Your task to perform on an android device: check the backup settings in the google photos Image 0: 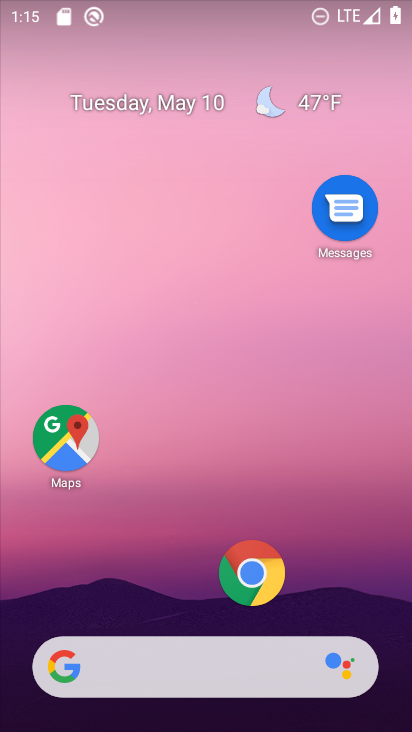
Step 0: drag from (207, 629) to (253, 148)
Your task to perform on an android device: check the backup settings in the google photos Image 1: 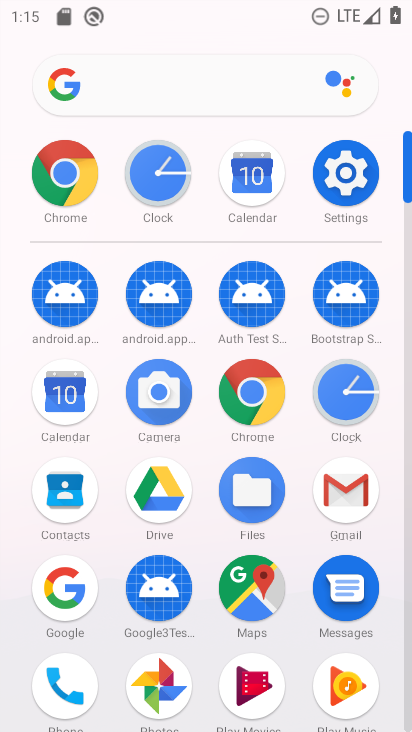
Step 1: click (153, 693)
Your task to perform on an android device: check the backup settings in the google photos Image 2: 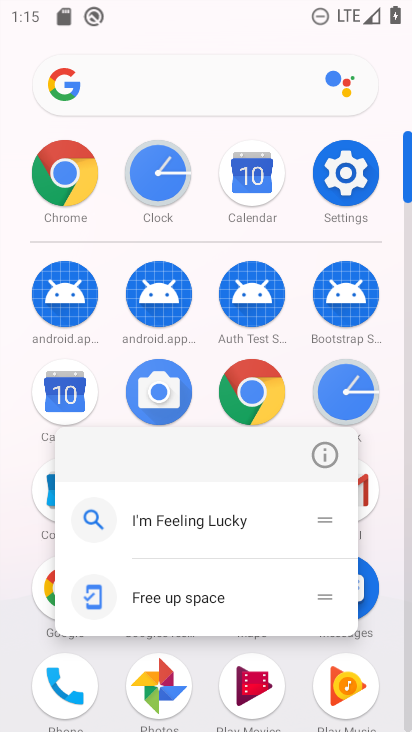
Step 2: click (319, 451)
Your task to perform on an android device: check the backup settings in the google photos Image 3: 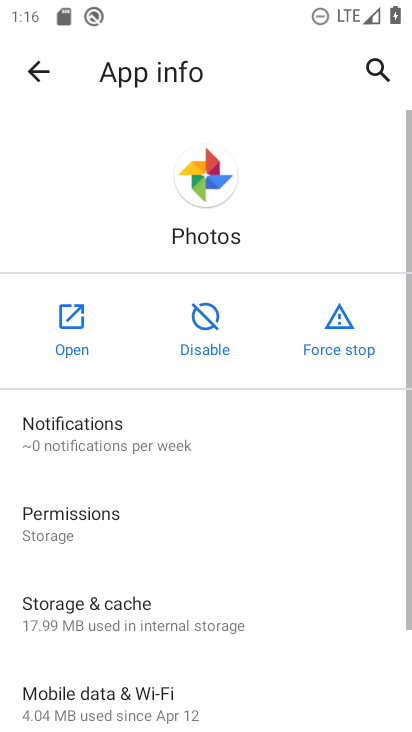
Step 3: click (72, 334)
Your task to perform on an android device: check the backup settings in the google photos Image 4: 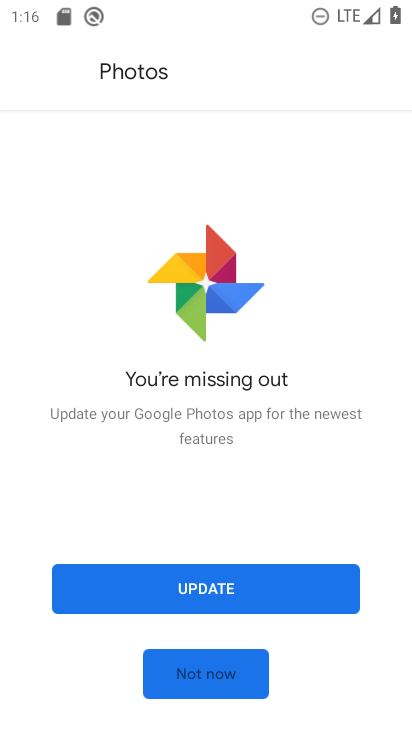
Step 4: click (215, 666)
Your task to perform on an android device: check the backup settings in the google photos Image 5: 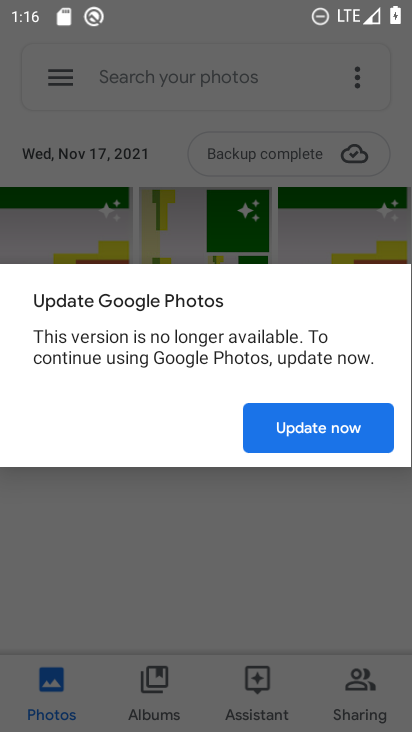
Step 5: click (344, 420)
Your task to perform on an android device: check the backup settings in the google photos Image 6: 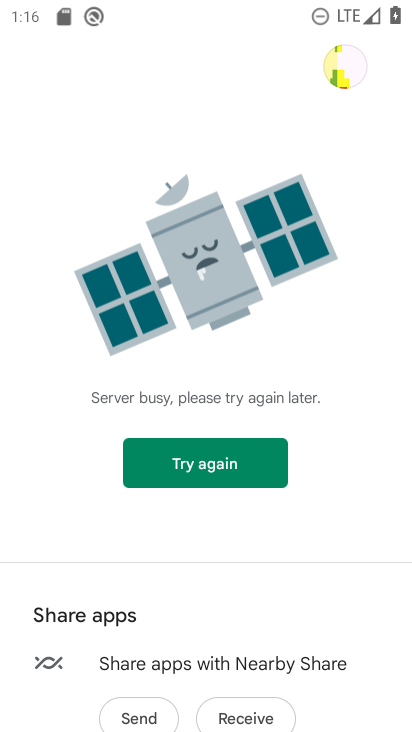
Step 6: press back button
Your task to perform on an android device: check the backup settings in the google photos Image 7: 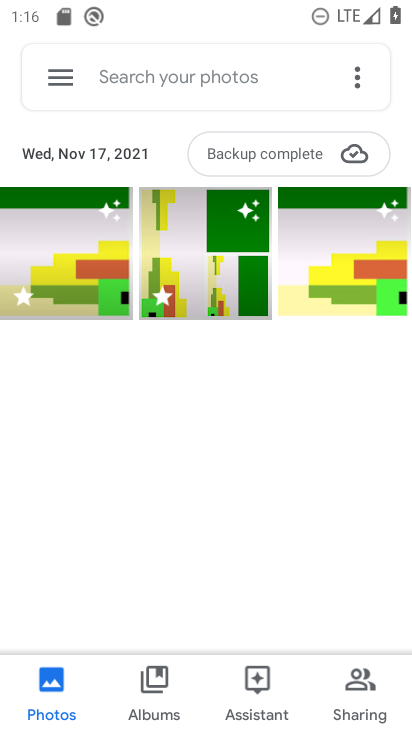
Step 7: click (66, 66)
Your task to perform on an android device: check the backup settings in the google photos Image 8: 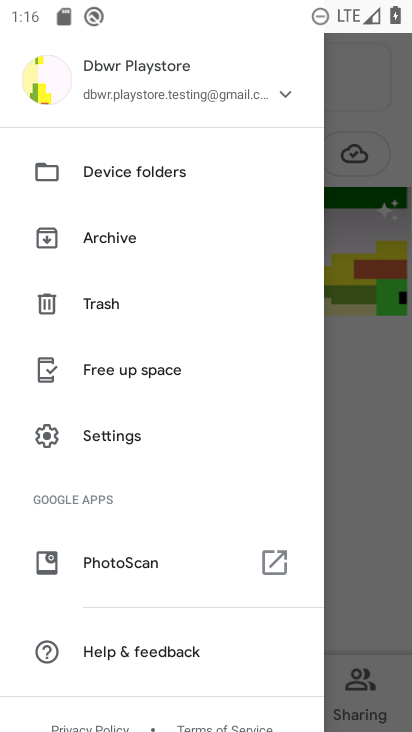
Step 8: click (109, 433)
Your task to perform on an android device: check the backup settings in the google photos Image 9: 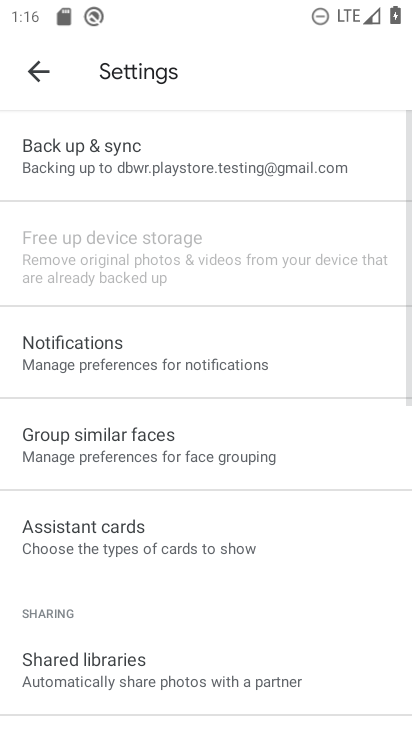
Step 9: click (180, 145)
Your task to perform on an android device: check the backup settings in the google photos Image 10: 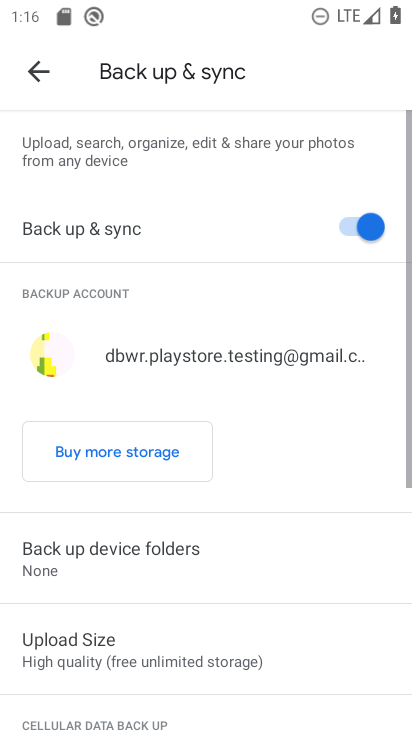
Step 10: task complete